Your task to perform on an android device: Find coffee shops on Maps Image 0: 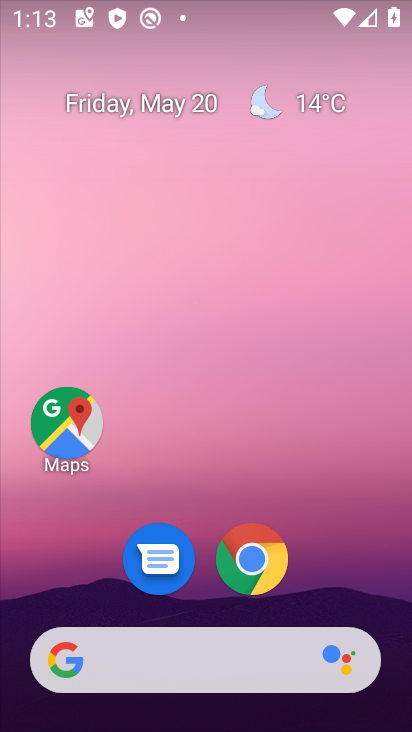
Step 0: click (63, 413)
Your task to perform on an android device: Find coffee shops on Maps Image 1: 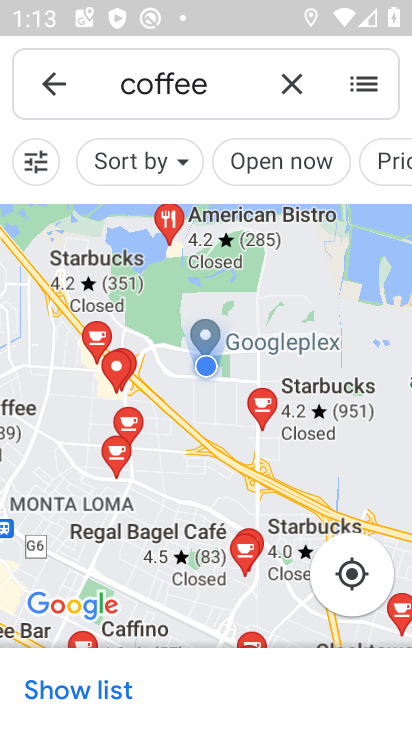
Step 1: task complete